Your task to perform on an android device: Go to sound settings Image 0: 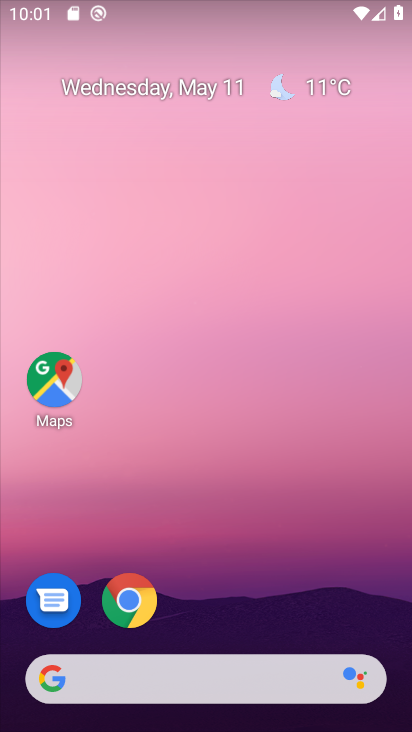
Step 0: drag from (212, 617) to (235, 12)
Your task to perform on an android device: Go to sound settings Image 1: 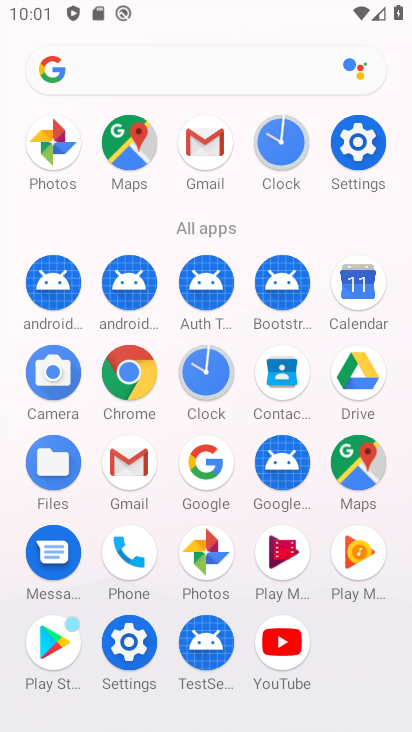
Step 1: click (344, 156)
Your task to perform on an android device: Go to sound settings Image 2: 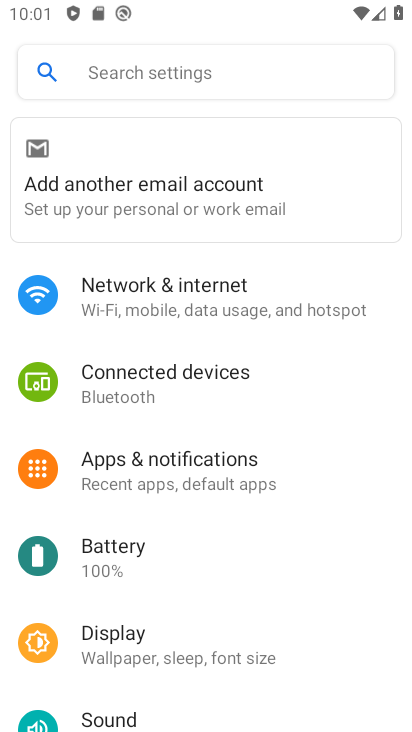
Step 2: click (227, 714)
Your task to perform on an android device: Go to sound settings Image 3: 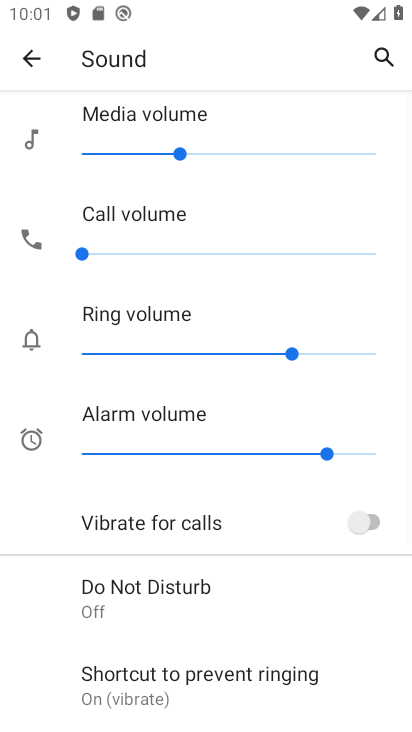
Step 3: task complete